Your task to perform on an android device: set the timer Image 0: 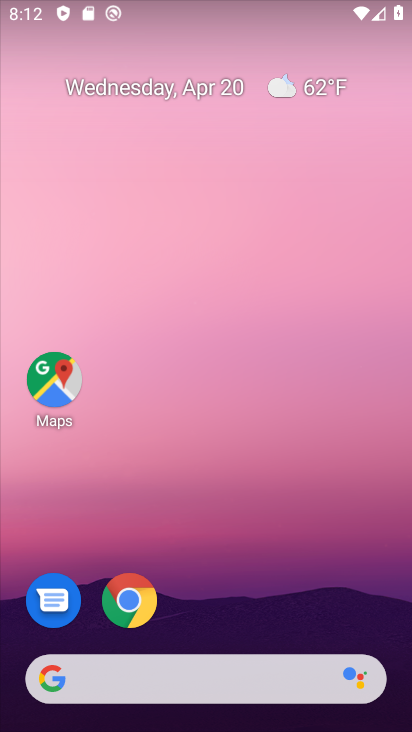
Step 0: drag from (203, 726) to (202, 132)
Your task to perform on an android device: set the timer Image 1: 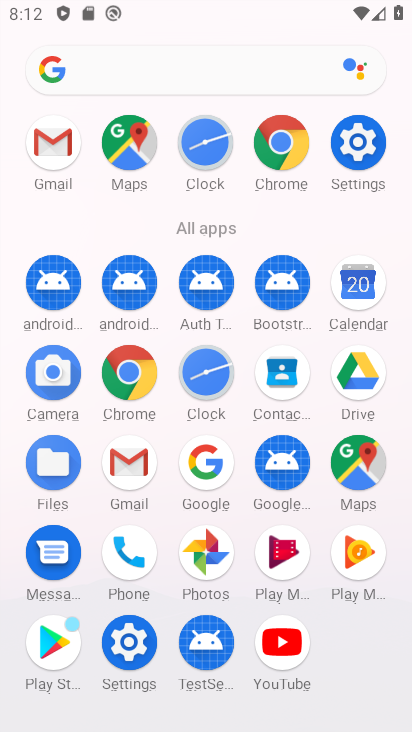
Step 1: click (361, 142)
Your task to perform on an android device: set the timer Image 2: 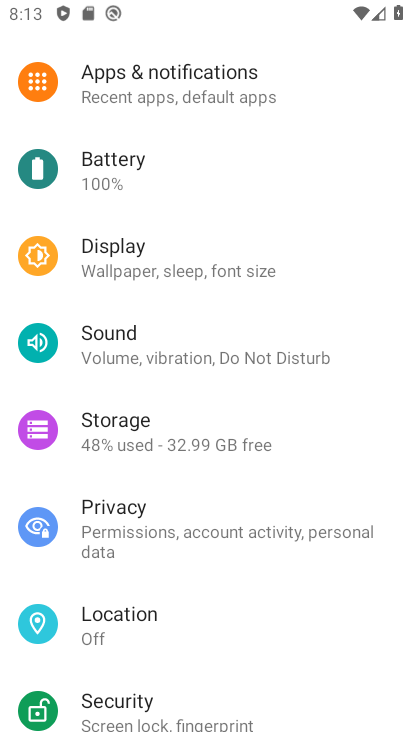
Step 2: press home button
Your task to perform on an android device: set the timer Image 3: 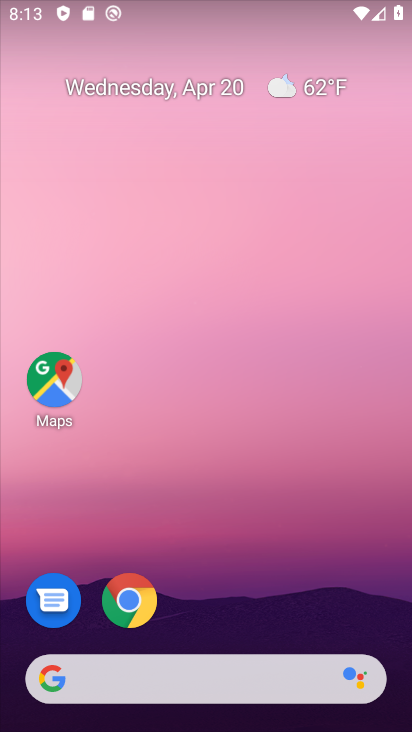
Step 3: drag from (211, 717) to (217, 147)
Your task to perform on an android device: set the timer Image 4: 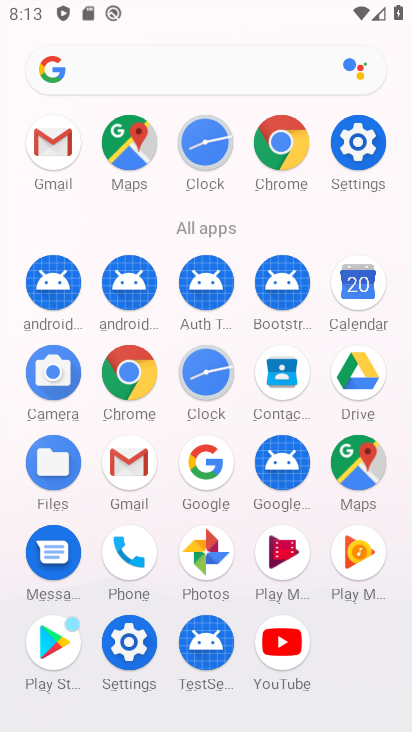
Step 4: click (206, 372)
Your task to perform on an android device: set the timer Image 5: 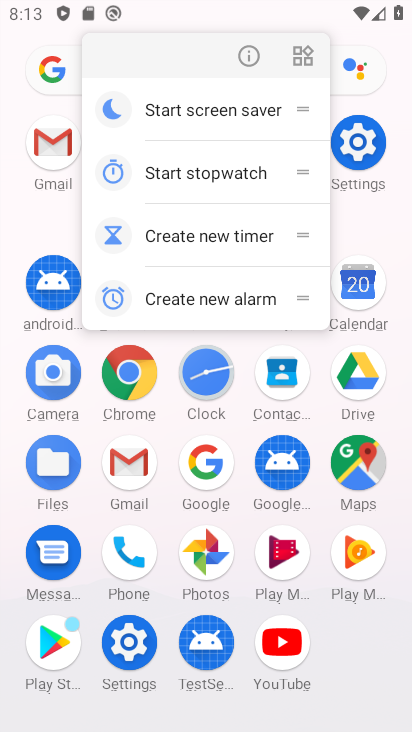
Step 5: click (205, 375)
Your task to perform on an android device: set the timer Image 6: 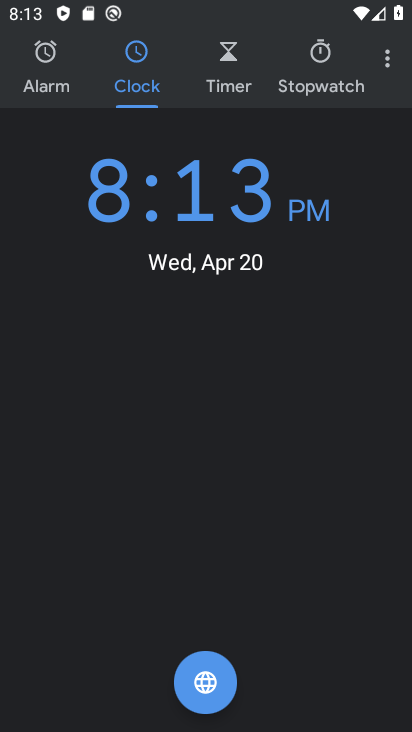
Step 6: click (217, 61)
Your task to perform on an android device: set the timer Image 7: 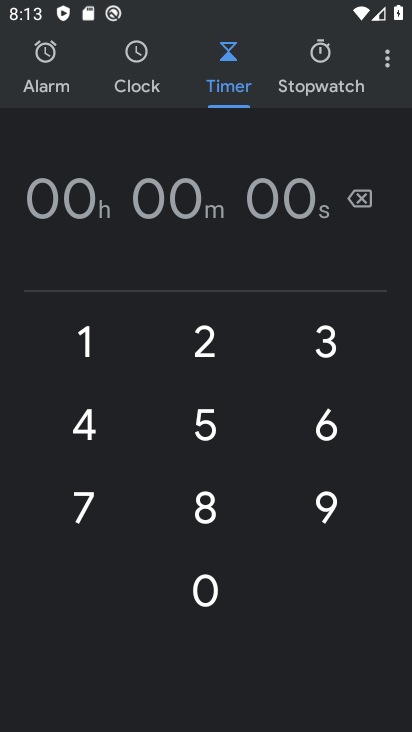
Step 7: click (200, 330)
Your task to perform on an android device: set the timer Image 8: 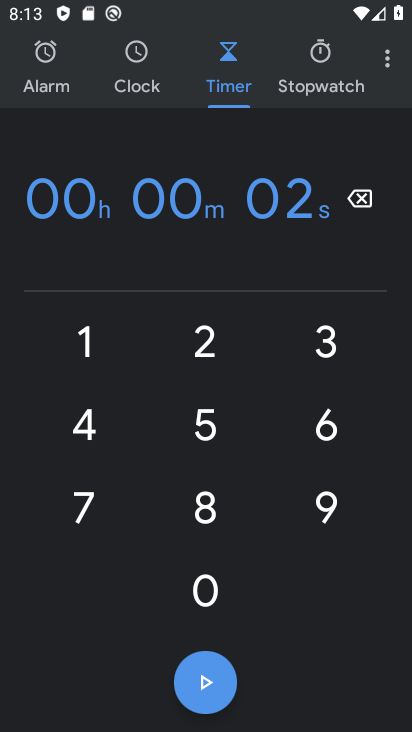
Step 8: click (209, 420)
Your task to perform on an android device: set the timer Image 9: 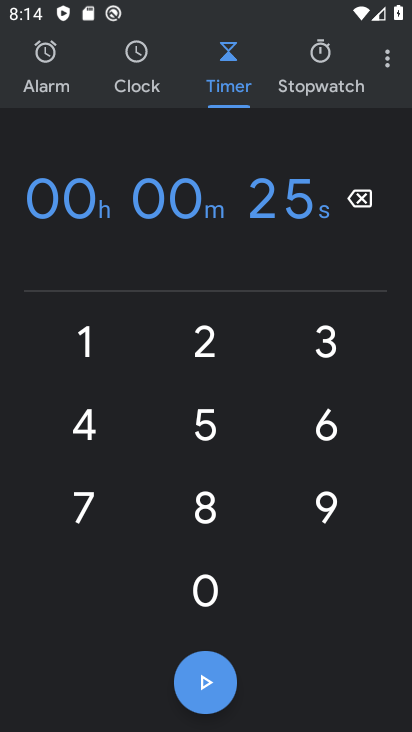
Step 9: click (206, 492)
Your task to perform on an android device: set the timer Image 10: 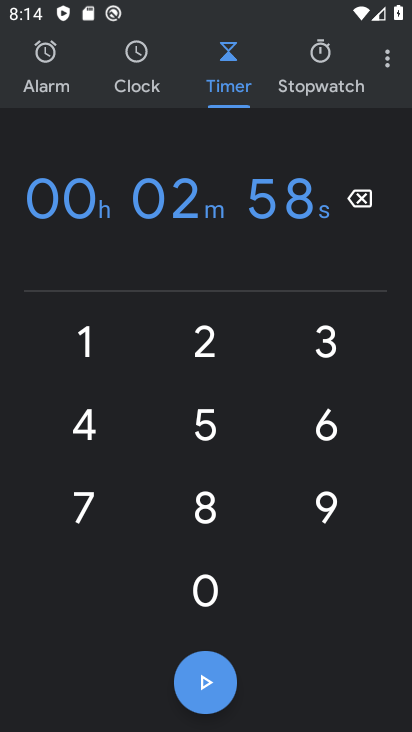
Step 10: click (207, 675)
Your task to perform on an android device: set the timer Image 11: 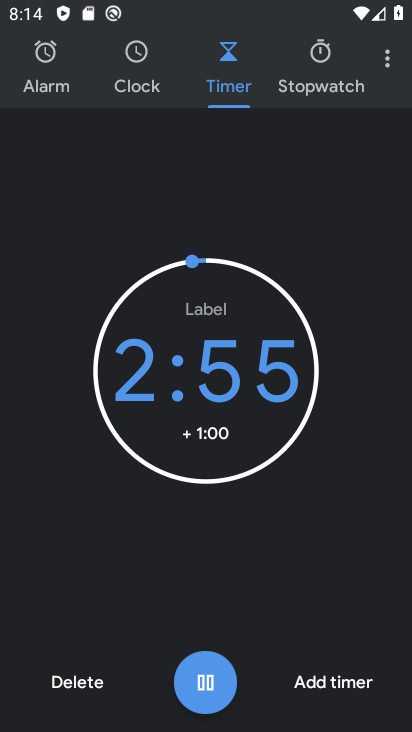
Step 11: task complete